Your task to perform on an android device: toggle data saver in the chrome app Image 0: 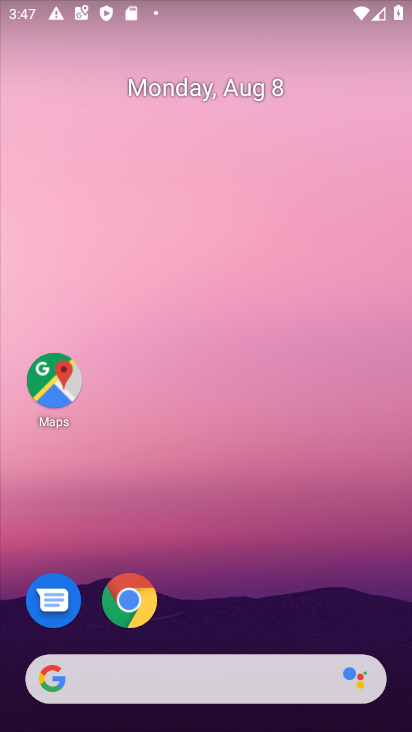
Step 0: click (122, 599)
Your task to perform on an android device: toggle data saver in the chrome app Image 1: 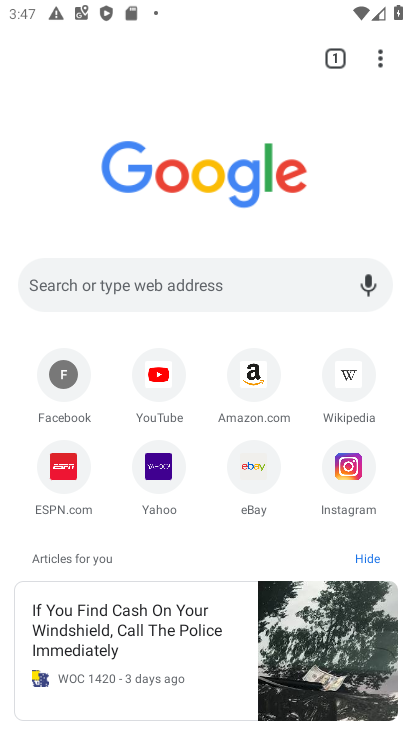
Step 1: click (379, 55)
Your task to perform on an android device: toggle data saver in the chrome app Image 2: 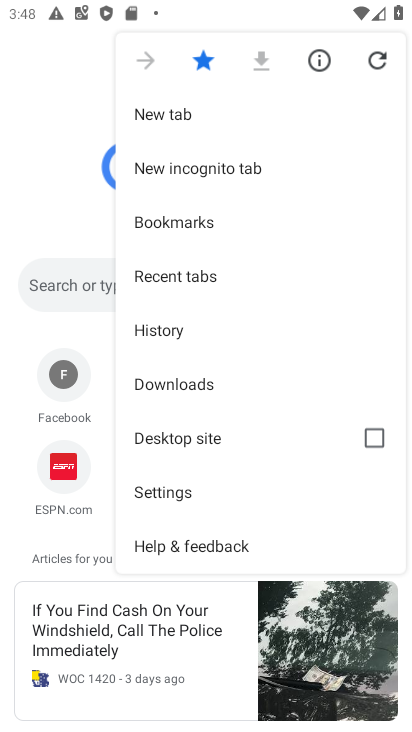
Step 2: click (169, 491)
Your task to perform on an android device: toggle data saver in the chrome app Image 3: 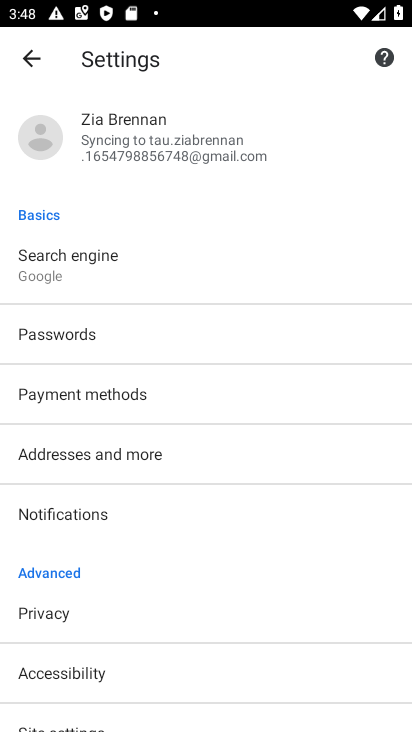
Step 3: drag from (257, 617) to (303, 283)
Your task to perform on an android device: toggle data saver in the chrome app Image 4: 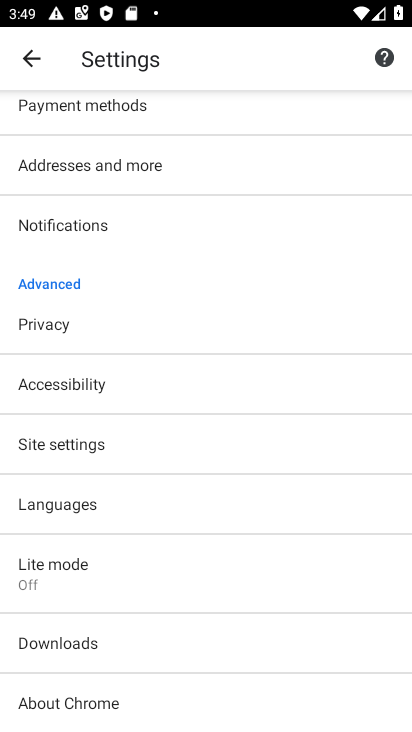
Step 4: click (47, 576)
Your task to perform on an android device: toggle data saver in the chrome app Image 5: 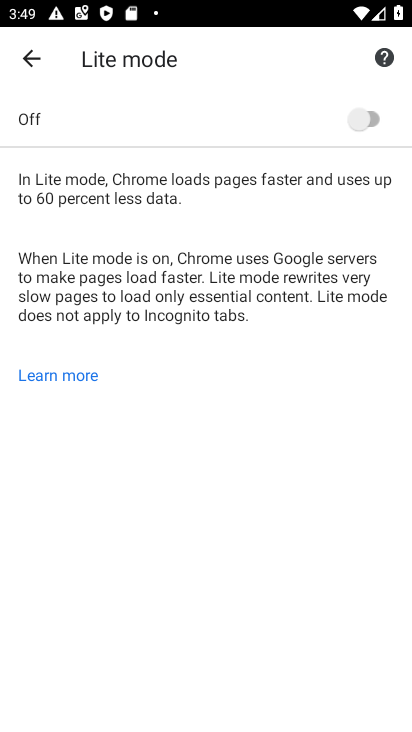
Step 5: click (373, 118)
Your task to perform on an android device: toggle data saver in the chrome app Image 6: 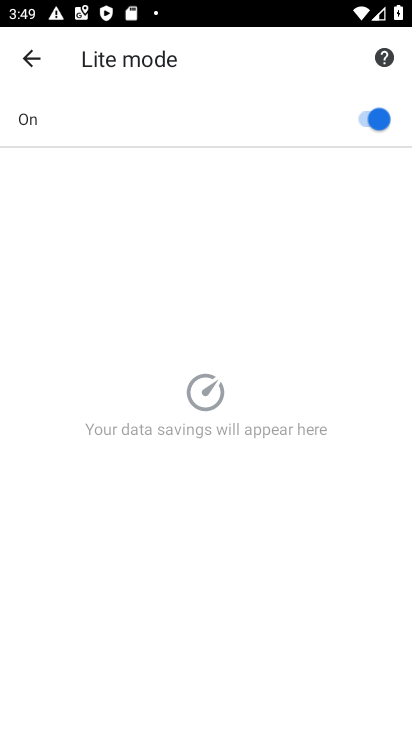
Step 6: task complete